Your task to perform on an android device: uninstall "Reddit" Image 0: 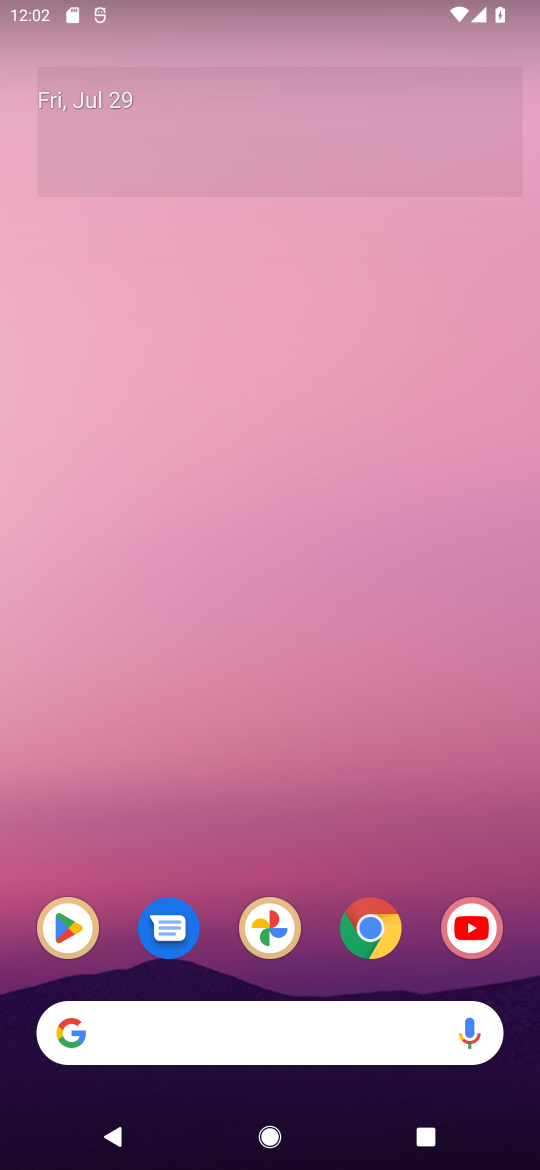
Step 0: drag from (418, 836) to (335, 31)
Your task to perform on an android device: uninstall "Reddit" Image 1: 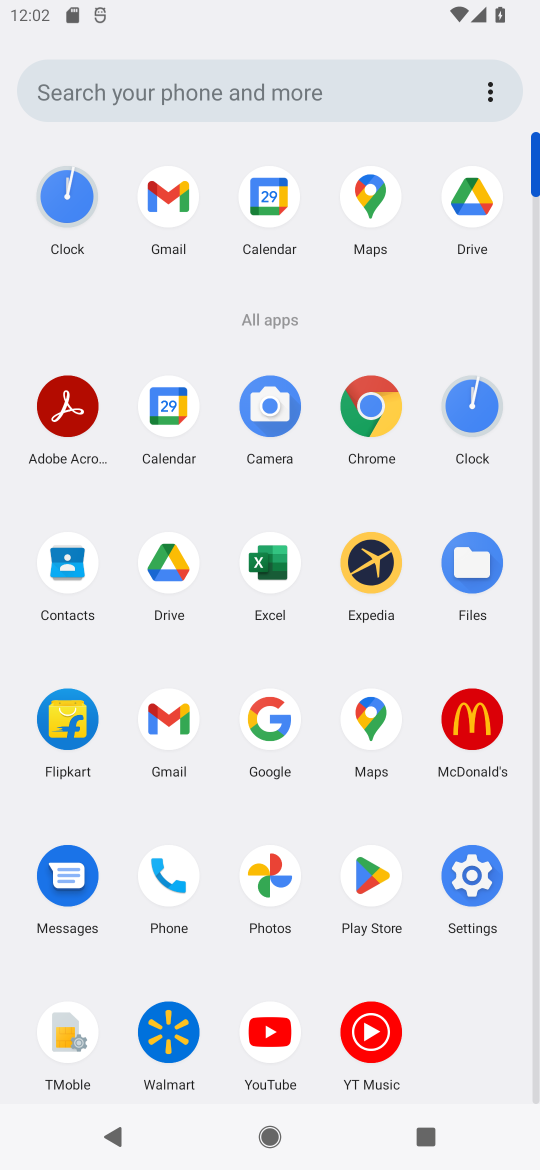
Step 1: click (365, 879)
Your task to perform on an android device: uninstall "Reddit" Image 2: 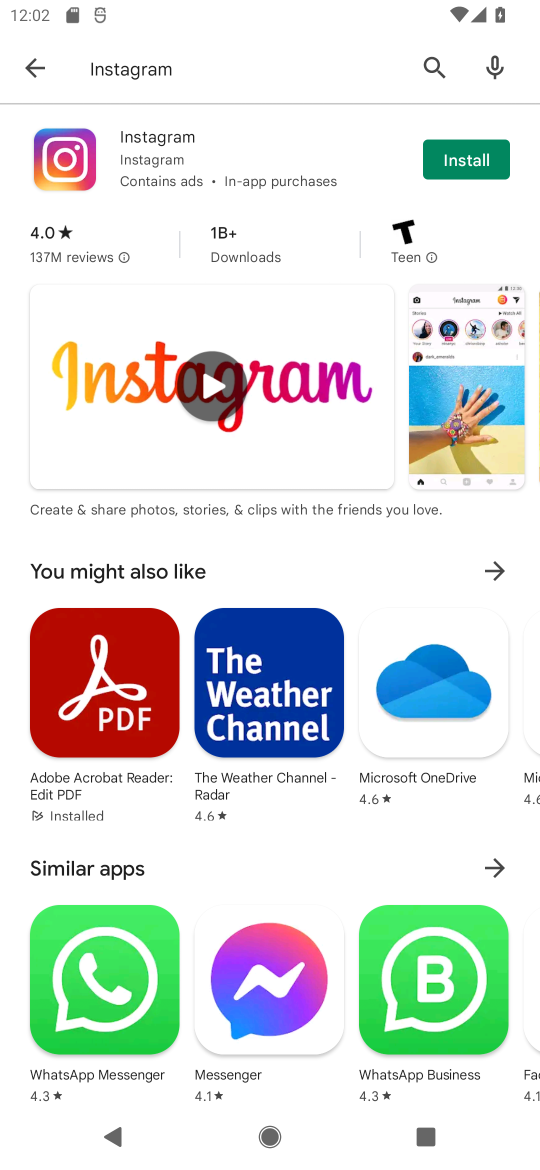
Step 2: click (168, 74)
Your task to perform on an android device: uninstall "Reddit" Image 3: 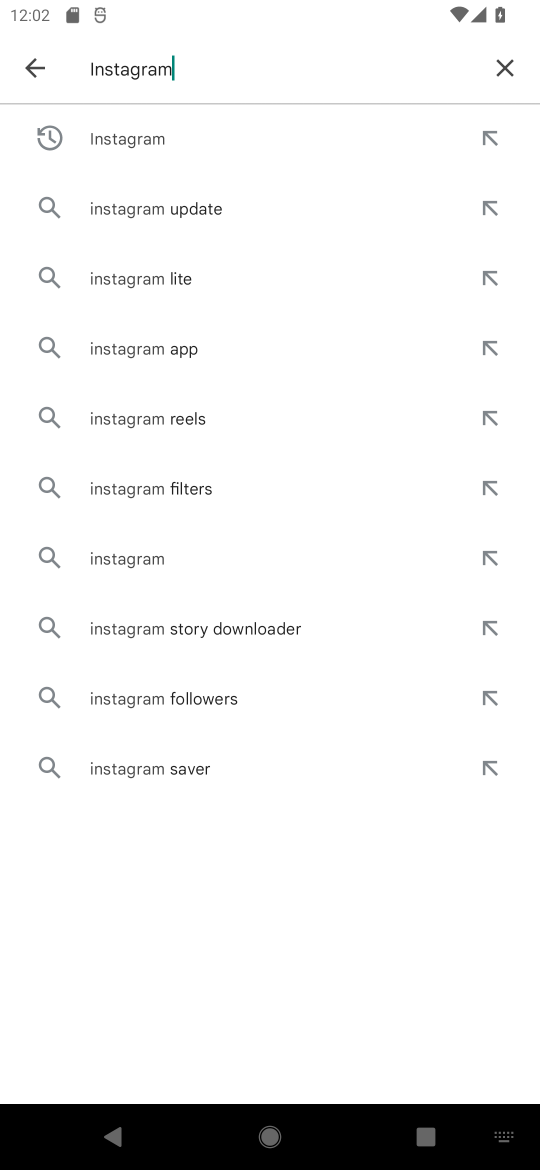
Step 3: click (496, 66)
Your task to perform on an android device: uninstall "Reddit" Image 4: 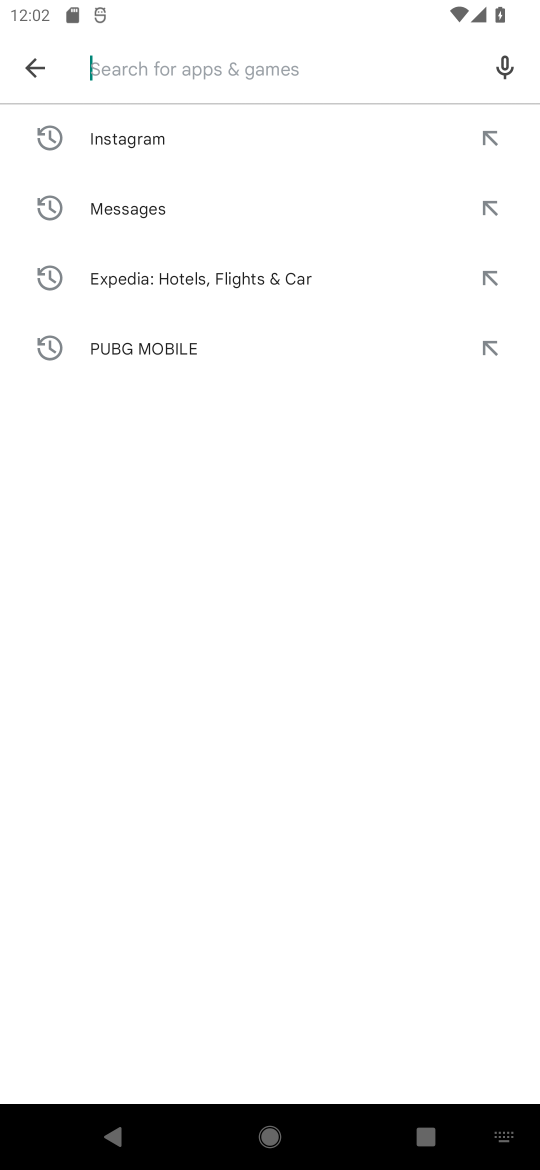
Step 4: type "Reddit"
Your task to perform on an android device: uninstall "Reddit" Image 5: 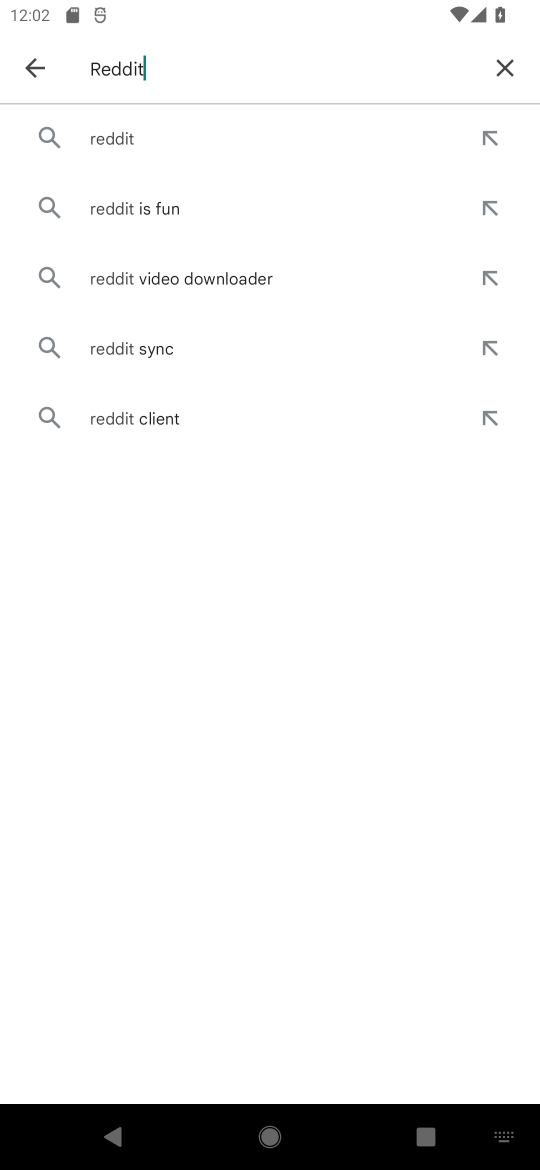
Step 5: press enter
Your task to perform on an android device: uninstall "Reddit" Image 6: 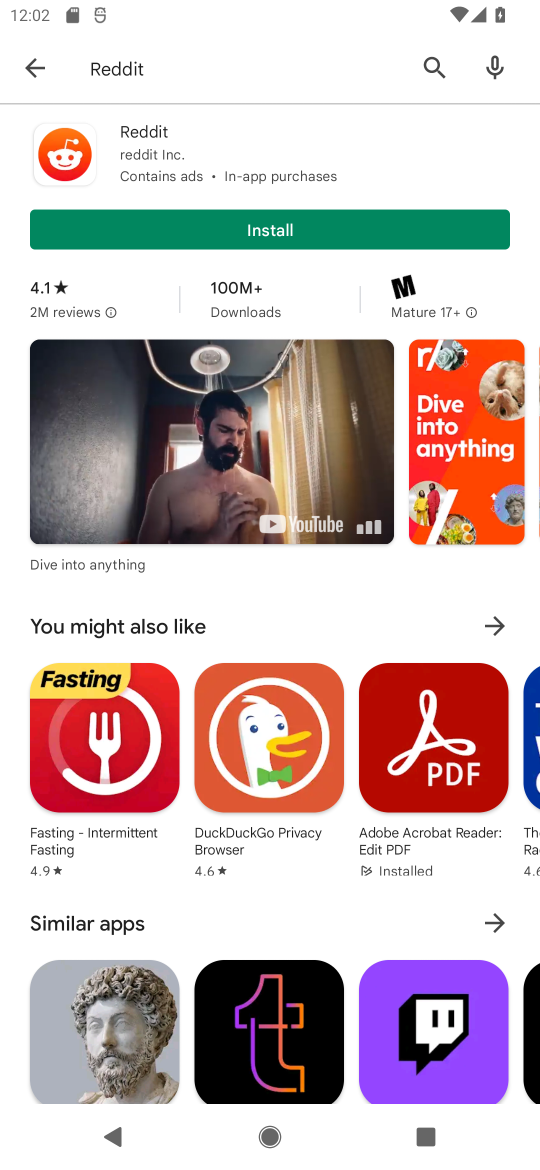
Step 6: task complete